Your task to perform on an android device: check the backup settings in the google photos Image 0: 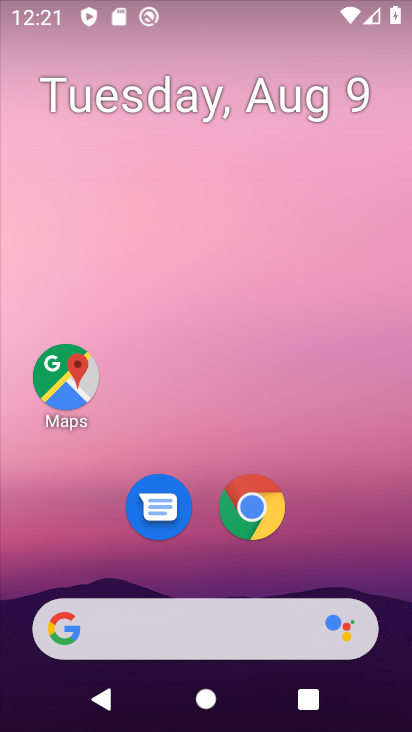
Step 0: drag from (381, 539) to (283, 136)
Your task to perform on an android device: check the backup settings in the google photos Image 1: 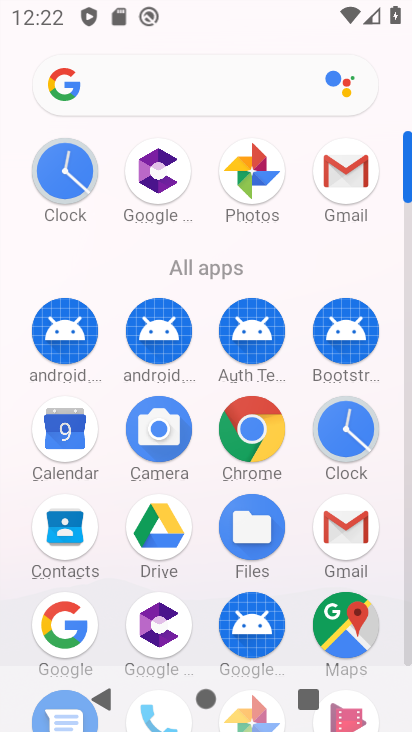
Step 1: drag from (303, 601) to (254, 415)
Your task to perform on an android device: check the backup settings in the google photos Image 2: 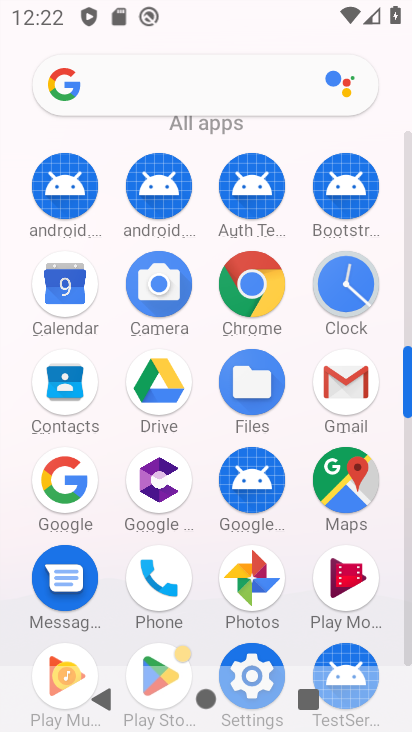
Step 2: click (251, 573)
Your task to perform on an android device: check the backup settings in the google photos Image 3: 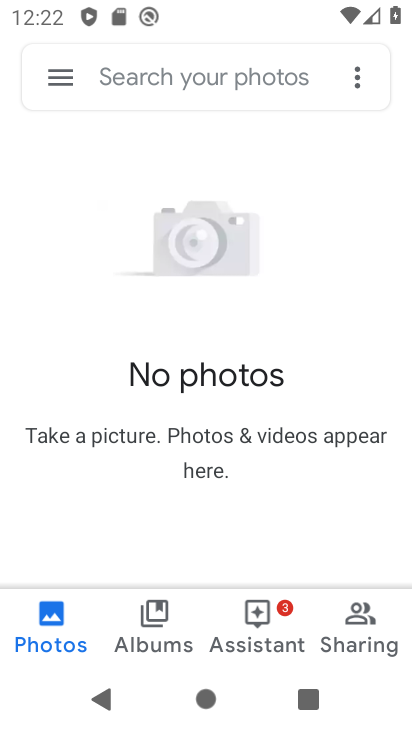
Step 3: click (68, 91)
Your task to perform on an android device: check the backup settings in the google photos Image 4: 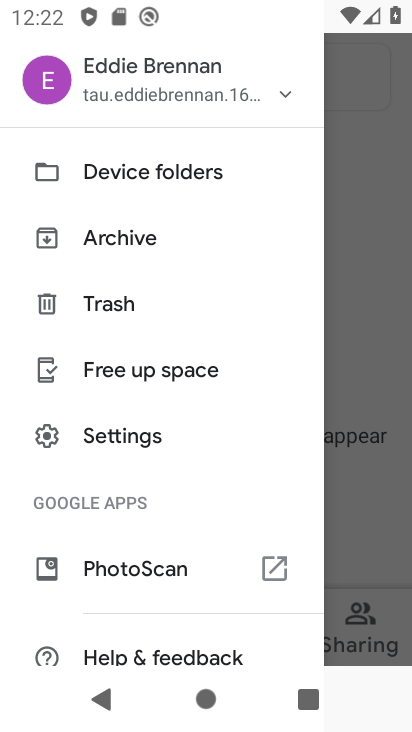
Step 4: click (90, 424)
Your task to perform on an android device: check the backup settings in the google photos Image 5: 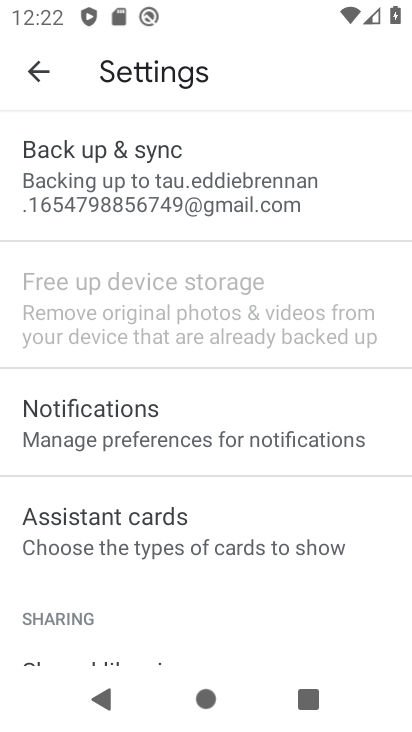
Step 5: click (213, 221)
Your task to perform on an android device: check the backup settings in the google photos Image 6: 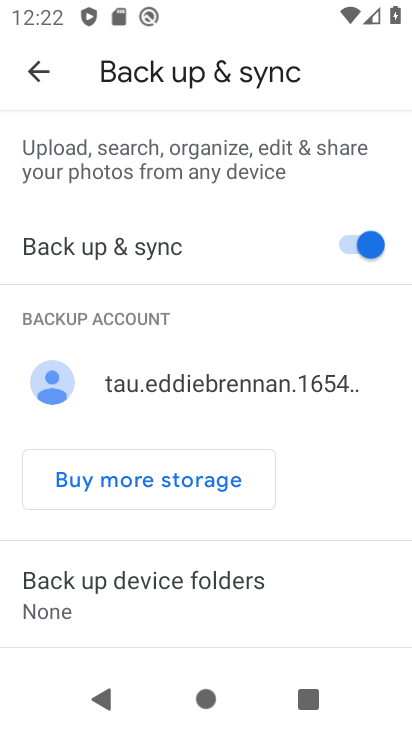
Step 6: task complete